Your task to perform on an android device: Open Youtube and go to "Your channel" Image 0: 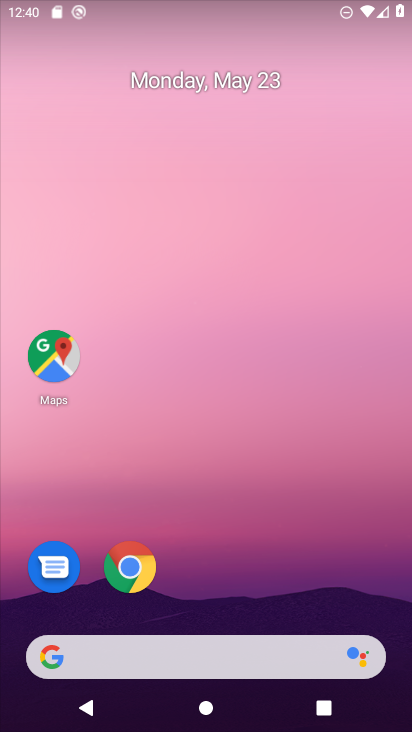
Step 0: drag from (192, 606) to (334, 1)
Your task to perform on an android device: Open Youtube and go to "Your channel" Image 1: 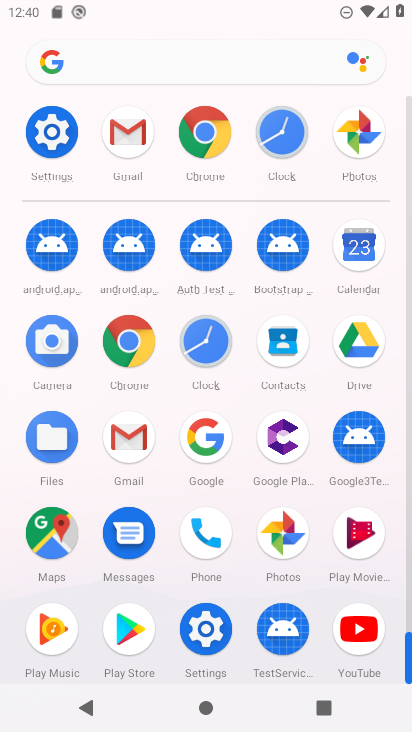
Step 1: click (361, 622)
Your task to perform on an android device: Open Youtube and go to "Your channel" Image 2: 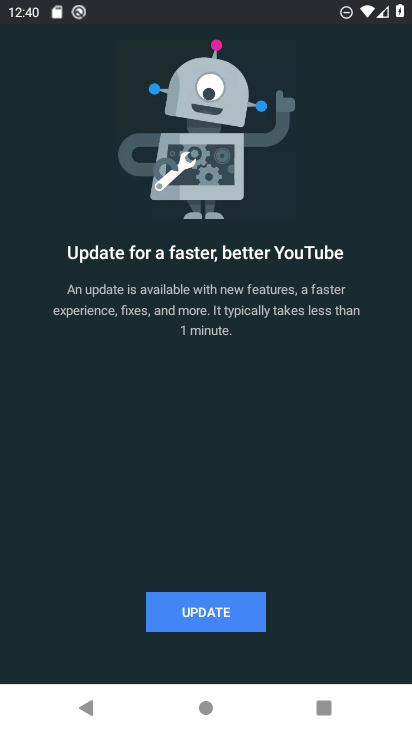
Step 2: click (184, 622)
Your task to perform on an android device: Open Youtube and go to "Your channel" Image 3: 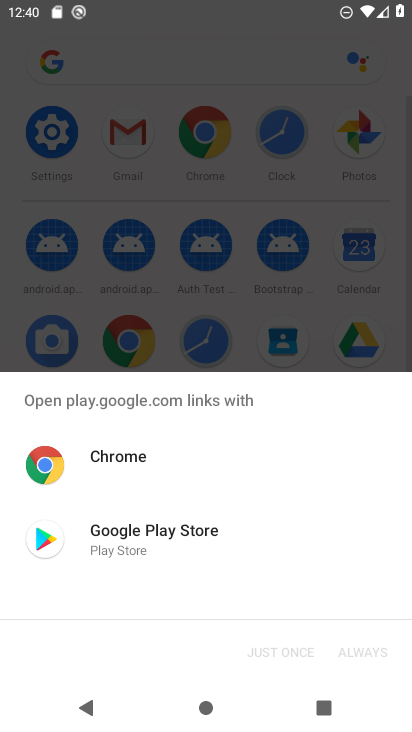
Step 3: click (155, 570)
Your task to perform on an android device: Open Youtube and go to "Your channel" Image 4: 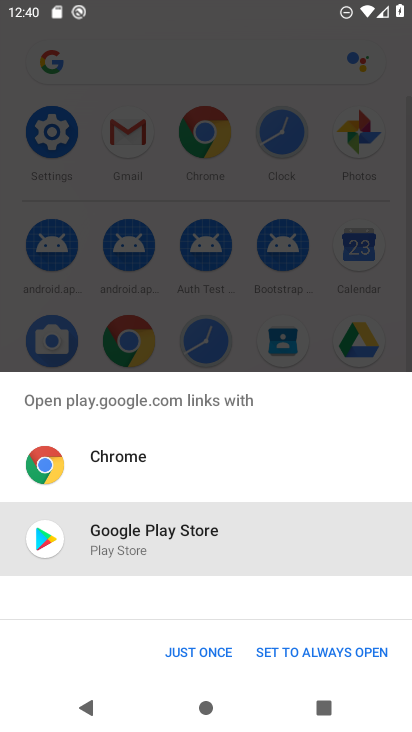
Step 4: click (209, 654)
Your task to perform on an android device: Open Youtube and go to "Your channel" Image 5: 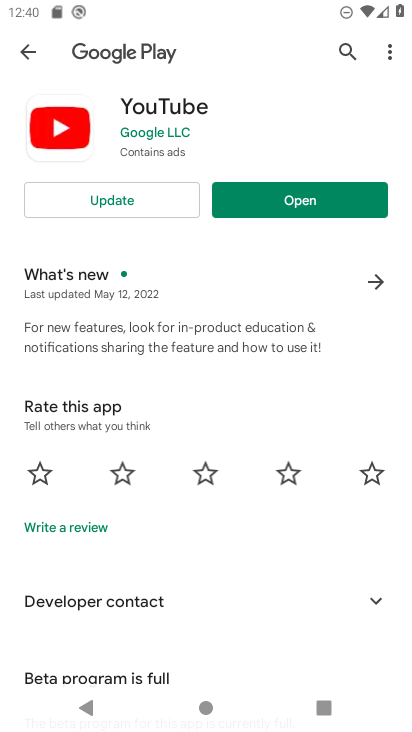
Step 5: click (133, 208)
Your task to perform on an android device: Open Youtube and go to "Your channel" Image 6: 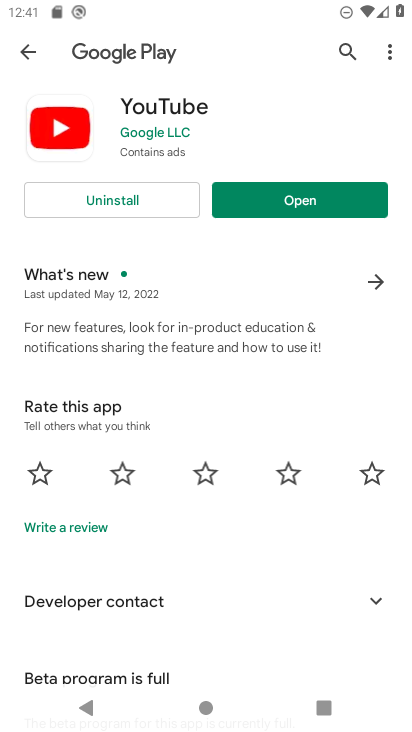
Step 6: click (331, 207)
Your task to perform on an android device: Open Youtube and go to "Your channel" Image 7: 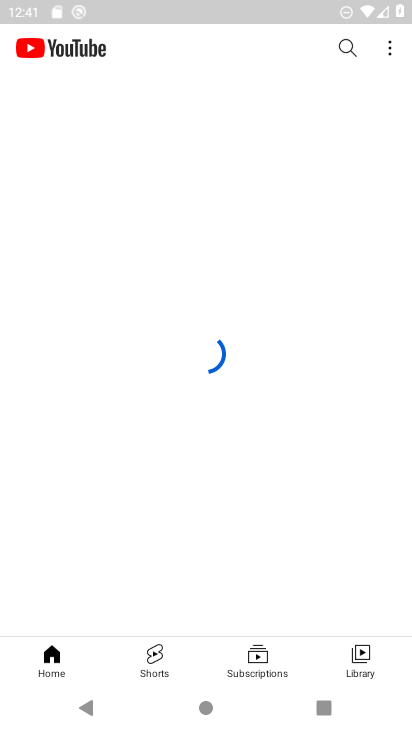
Step 7: click (363, 53)
Your task to perform on an android device: Open Youtube and go to "Your channel" Image 8: 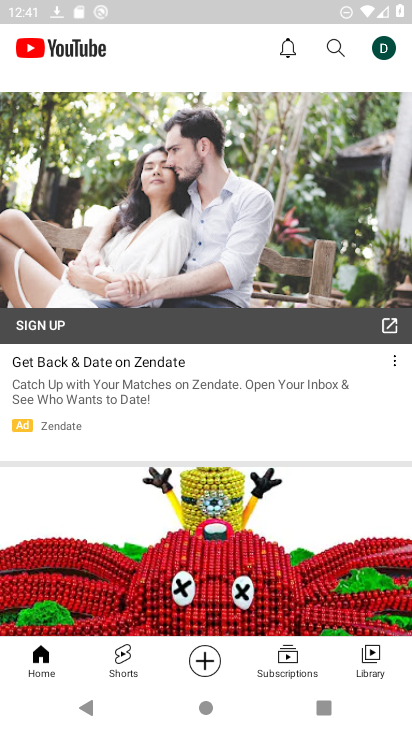
Step 8: click (336, 50)
Your task to perform on an android device: Open Youtube and go to "Your channel" Image 9: 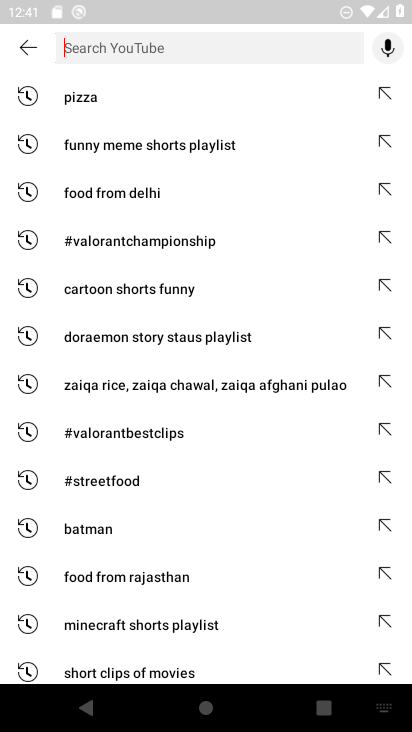
Step 9: type "your channel"
Your task to perform on an android device: Open Youtube and go to "Your channel" Image 10: 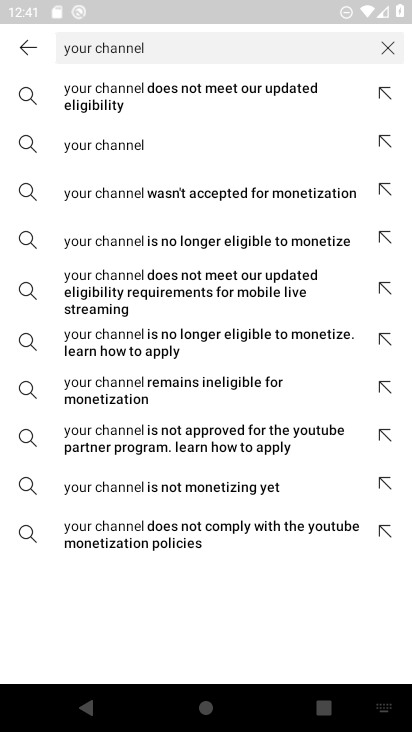
Step 10: click (95, 156)
Your task to perform on an android device: Open Youtube and go to "Your channel" Image 11: 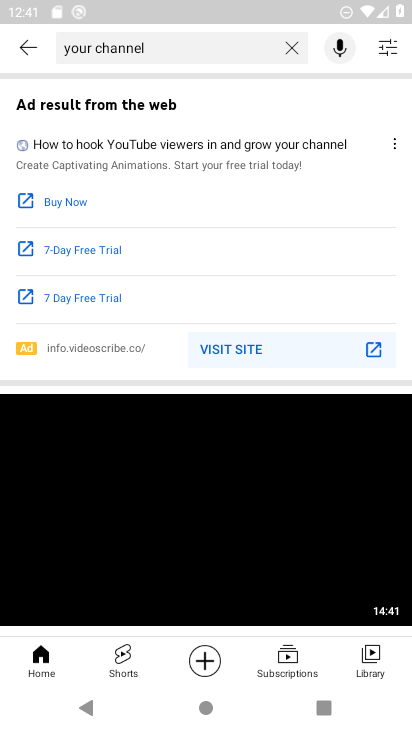
Step 11: task complete